Your task to perform on an android device: When is my next meeting? Image 0: 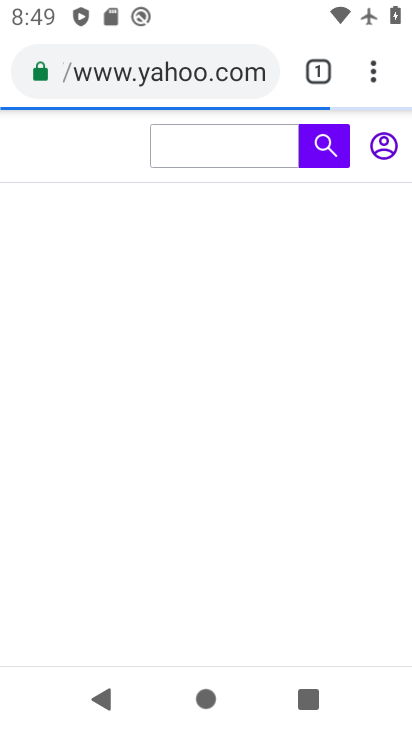
Step 0: press home button
Your task to perform on an android device: When is my next meeting? Image 1: 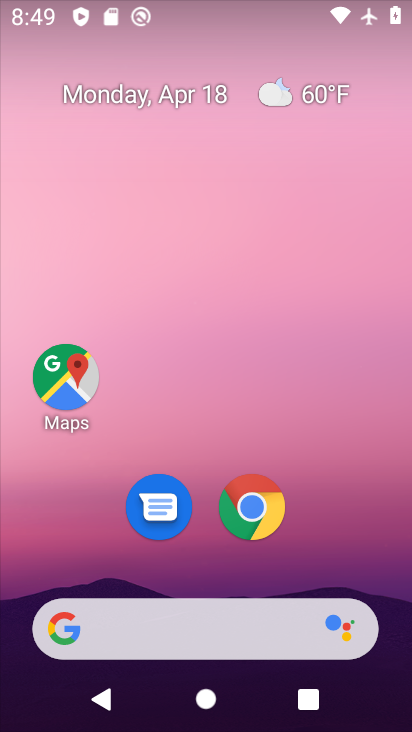
Step 1: drag from (337, 402) to (336, 151)
Your task to perform on an android device: When is my next meeting? Image 2: 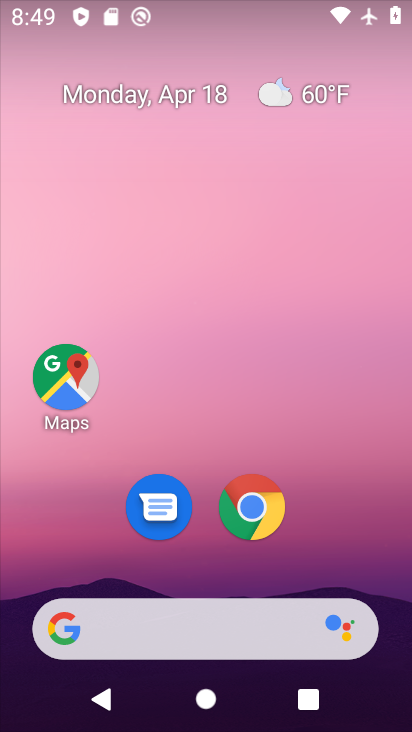
Step 2: drag from (324, 524) to (389, 66)
Your task to perform on an android device: When is my next meeting? Image 3: 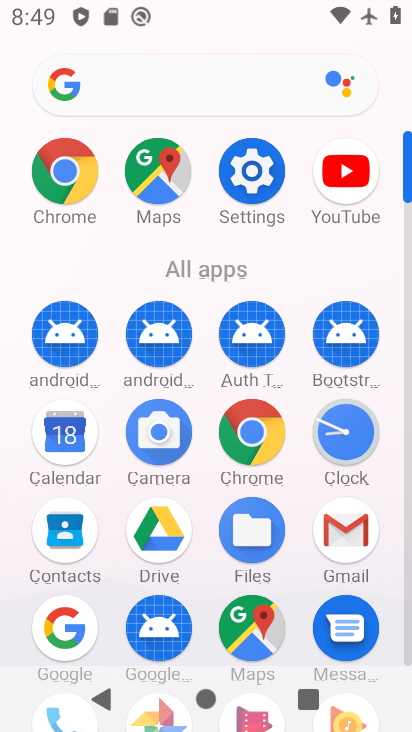
Step 3: drag from (311, 513) to (350, 249)
Your task to perform on an android device: When is my next meeting? Image 4: 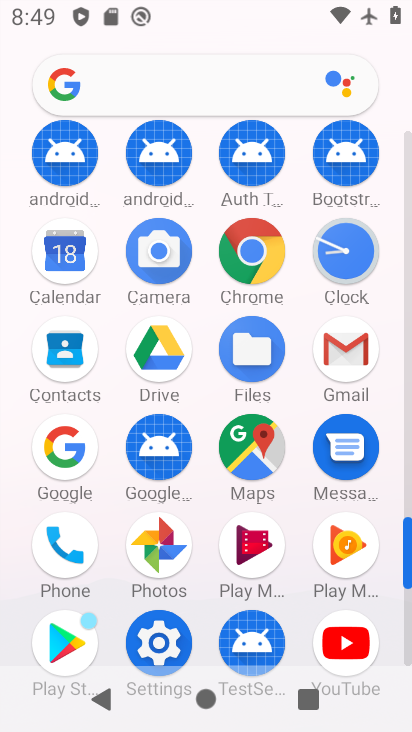
Step 4: click (63, 268)
Your task to perform on an android device: When is my next meeting? Image 5: 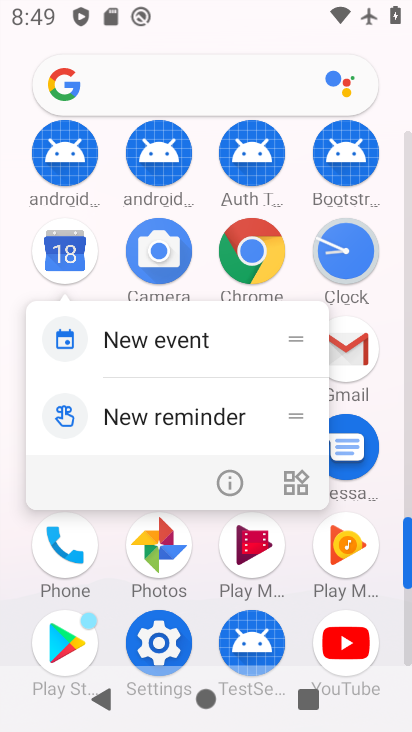
Step 5: click (79, 269)
Your task to perform on an android device: When is my next meeting? Image 6: 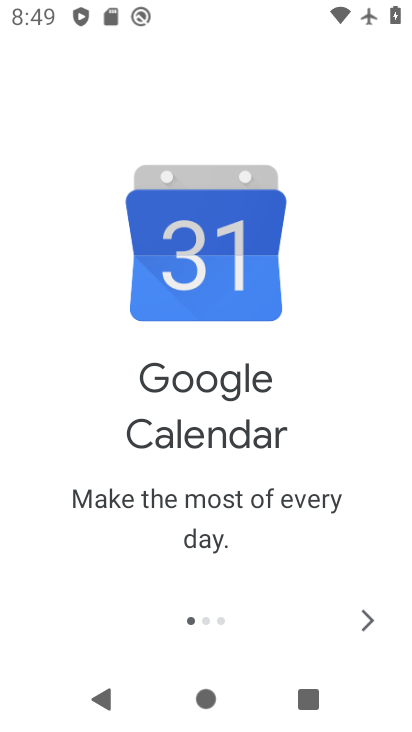
Step 6: click (365, 625)
Your task to perform on an android device: When is my next meeting? Image 7: 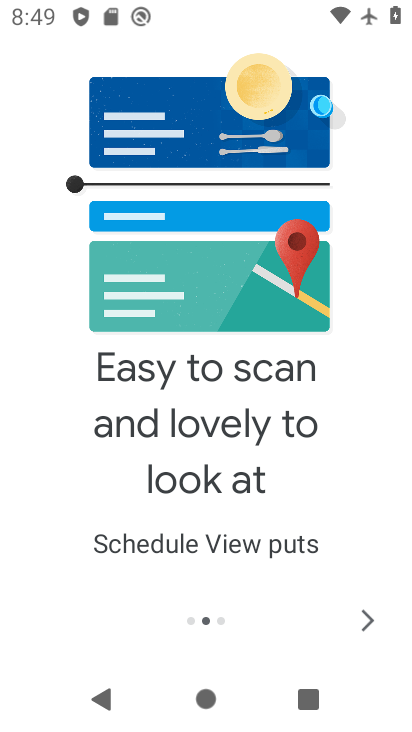
Step 7: click (368, 614)
Your task to perform on an android device: When is my next meeting? Image 8: 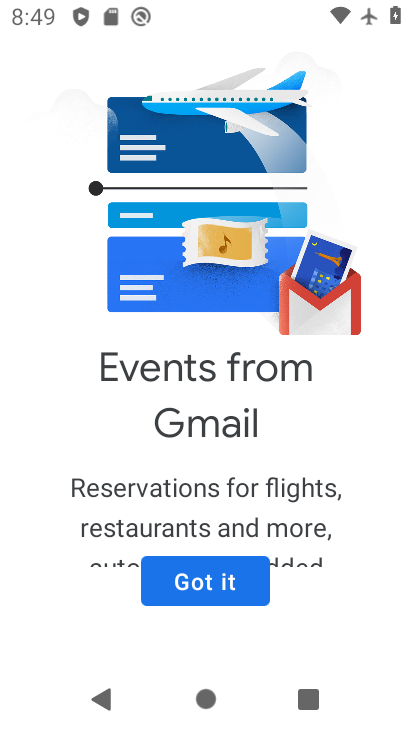
Step 8: click (251, 582)
Your task to perform on an android device: When is my next meeting? Image 9: 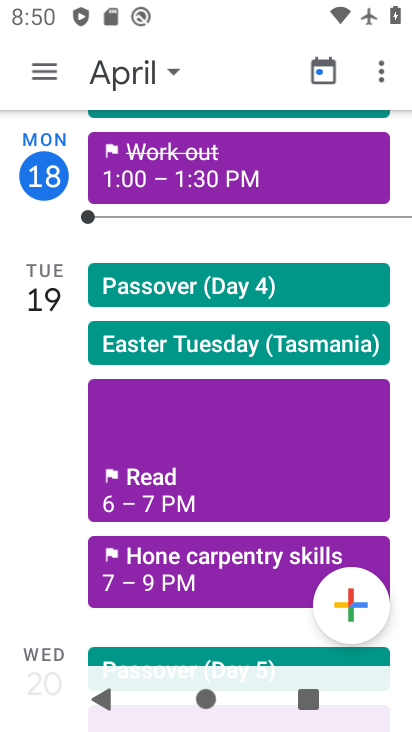
Step 9: task complete